Your task to perform on an android device: open sync settings in chrome Image 0: 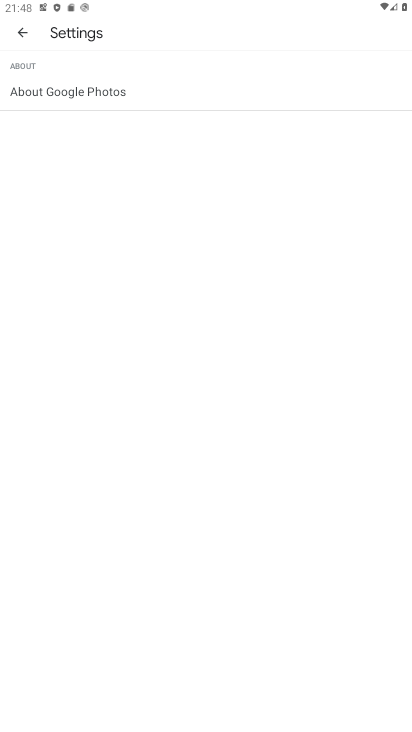
Step 0: press home button
Your task to perform on an android device: open sync settings in chrome Image 1: 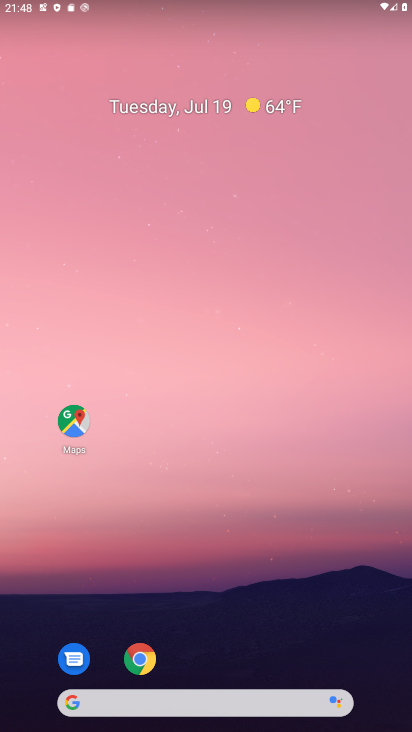
Step 1: click (158, 668)
Your task to perform on an android device: open sync settings in chrome Image 2: 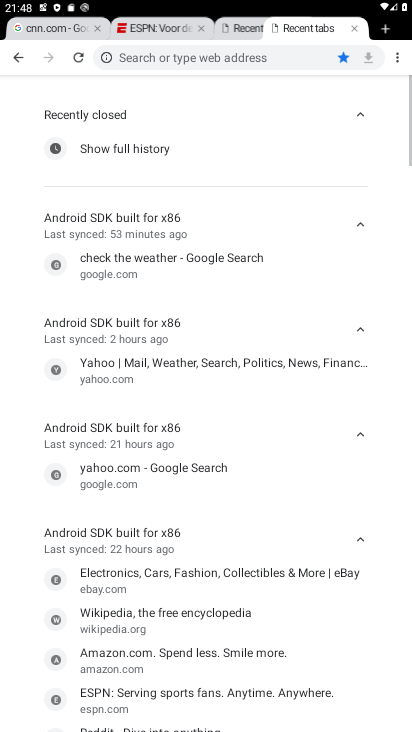
Step 2: click (393, 64)
Your task to perform on an android device: open sync settings in chrome Image 3: 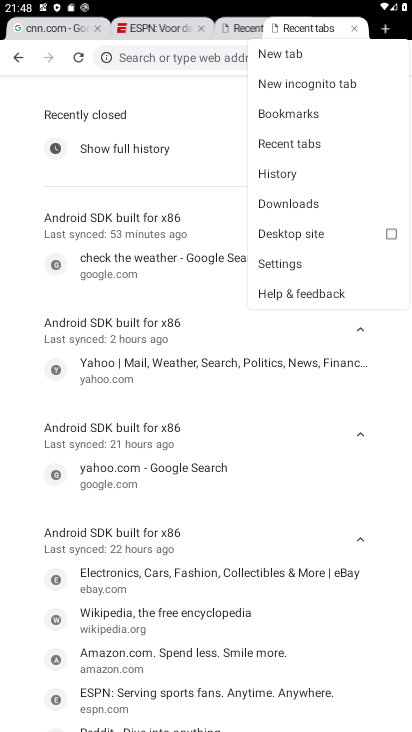
Step 3: click (310, 271)
Your task to perform on an android device: open sync settings in chrome Image 4: 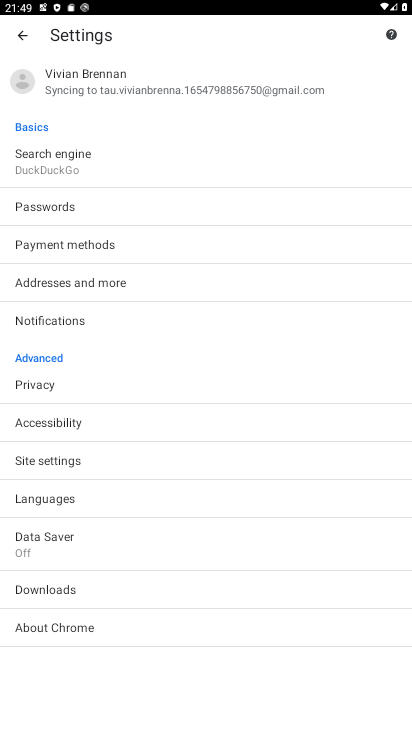
Step 4: click (160, 87)
Your task to perform on an android device: open sync settings in chrome Image 5: 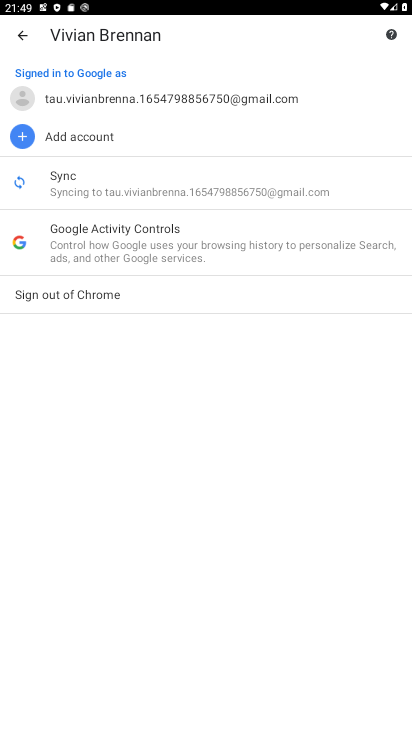
Step 5: click (80, 187)
Your task to perform on an android device: open sync settings in chrome Image 6: 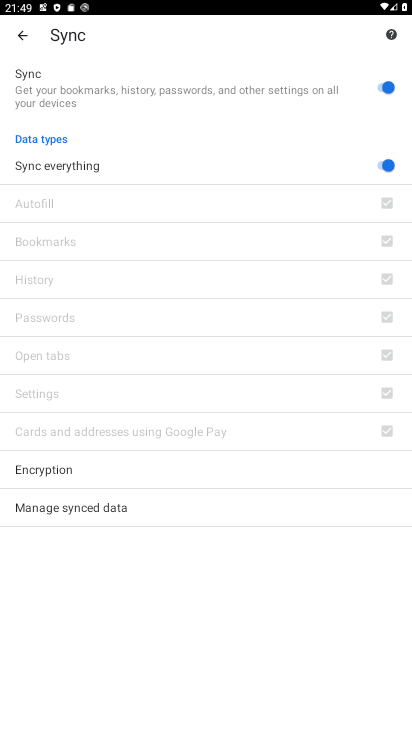
Step 6: task complete